Your task to perform on an android device: change your default location settings in chrome Image 0: 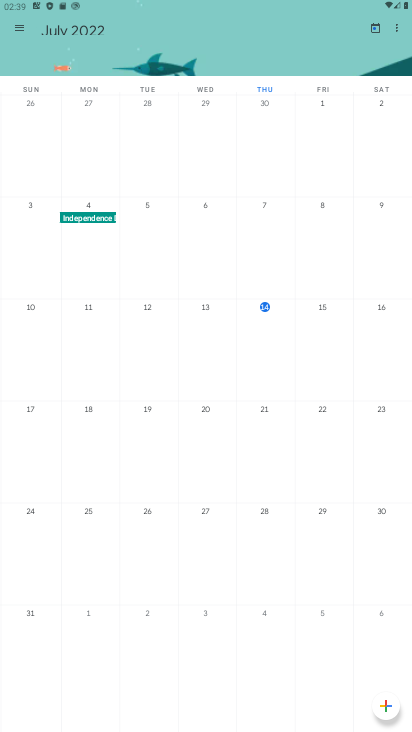
Step 0: task complete